Your task to perform on an android device: Open Reddit.com Image 0: 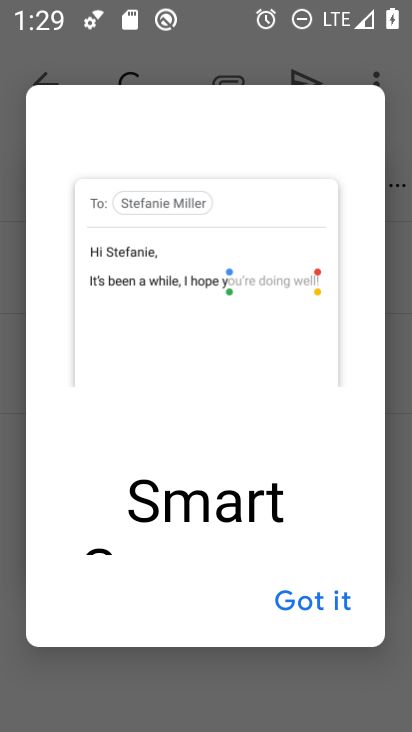
Step 0: press home button
Your task to perform on an android device: Open Reddit.com Image 1: 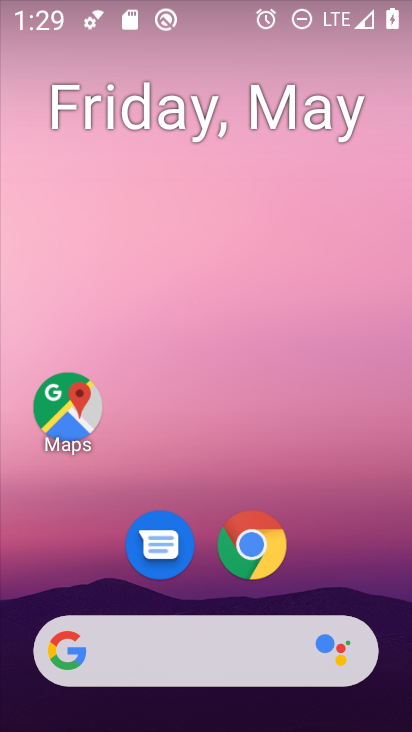
Step 1: click (285, 561)
Your task to perform on an android device: Open Reddit.com Image 2: 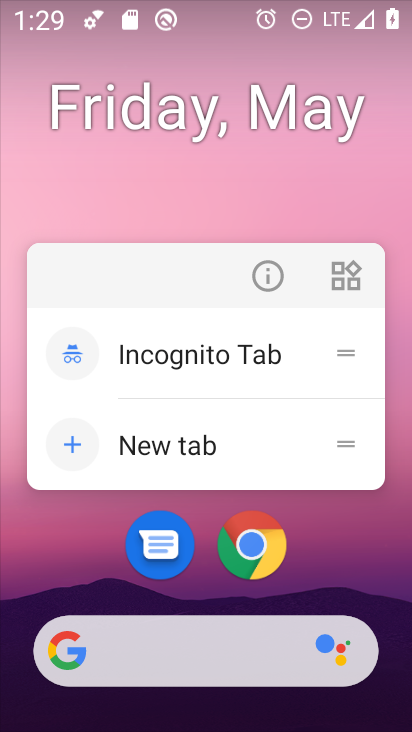
Step 2: click (263, 538)
Your task to perform on an android device: Open Reddit.com Image 3: 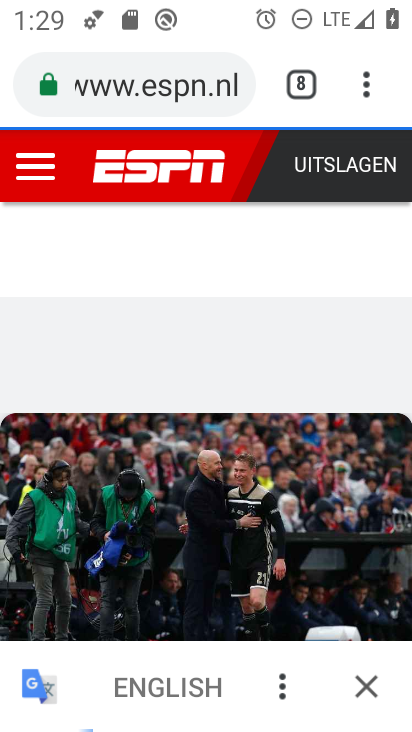
Step 3: click (356, 87)
Your task to perform on an android device: Open Reddit.com Image 4: 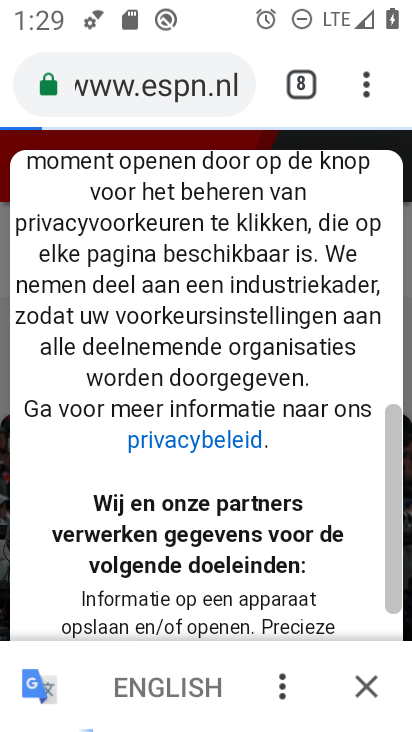
Step 4: click (368, 78)
Your task to perform on an android device: Open Reddit.com Image 5: 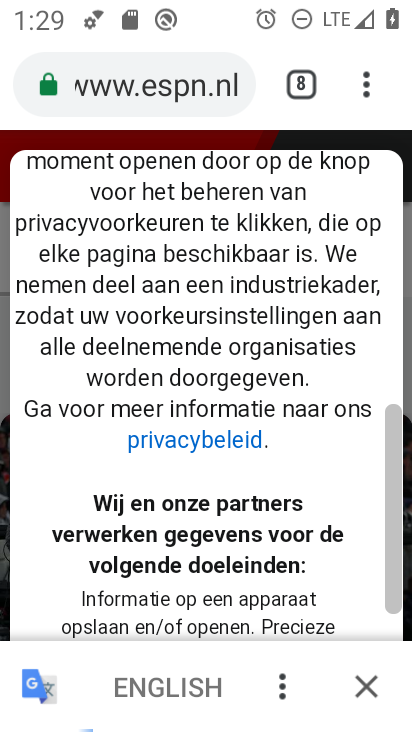
Step 5: click (353, 81)
Your task to perform on an android device: Open Reddit.com Image 6: 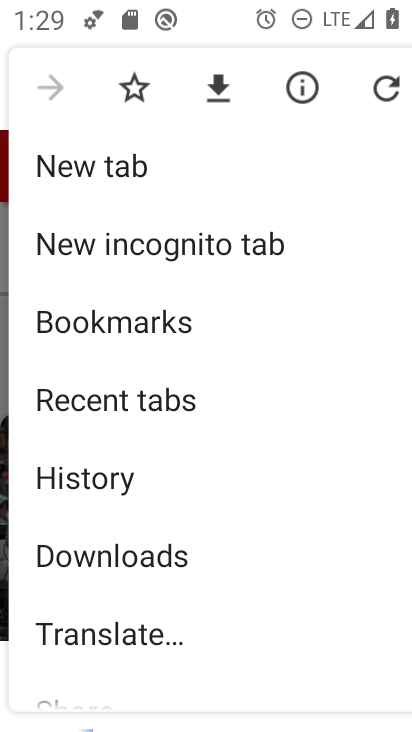
Step 6: click (97, 161)
Your task to perform on an android device: Open Reddit.com Image 7: 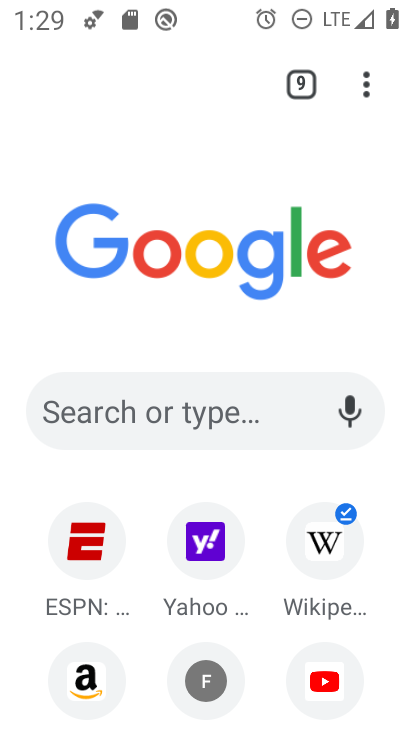
Step 7: click (172, 414)
Your task to perform on an android device: Open Reddit.com Image 8: 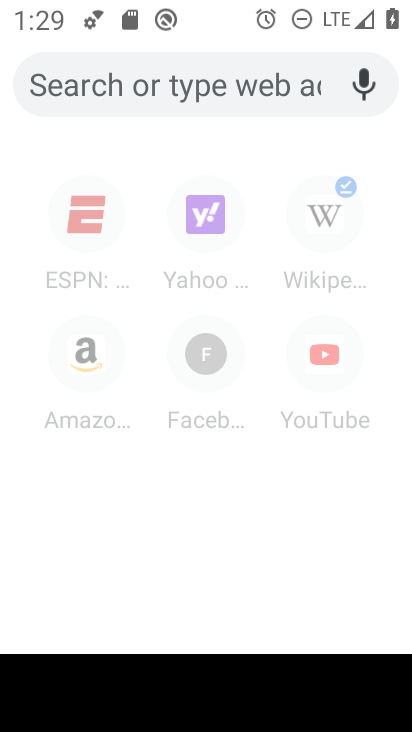
Step 8: type " Reddit.com"
Your task to perform on an android device: Open Reddit.com Image 9: 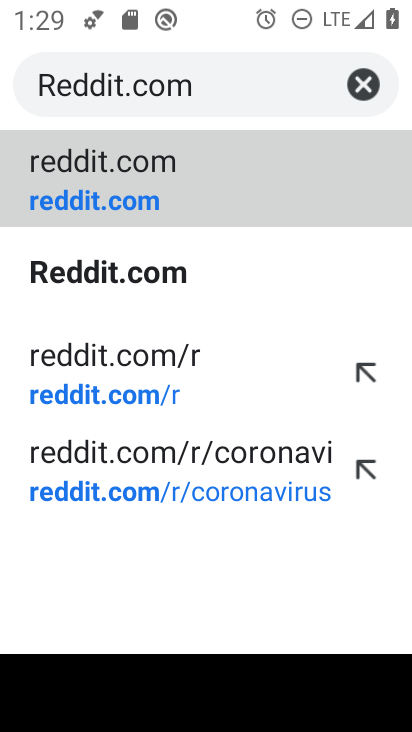
Step 9: click (206, 168)
Your task to perform on an android device: Open Reddit.com Image 10: 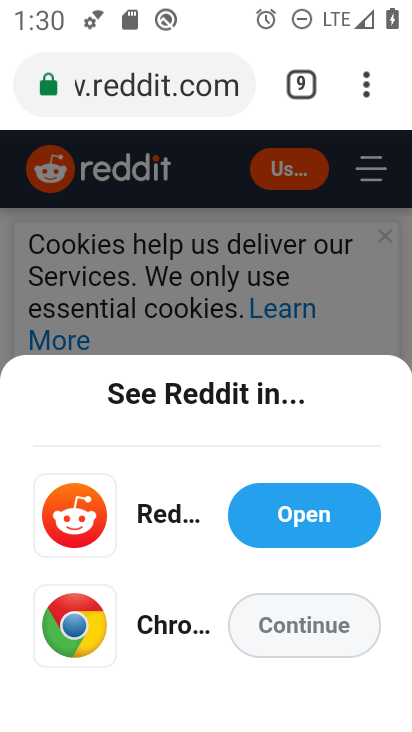
Step 10: task complete